Your task to perform on an android device: Clear the shopping cart on bestbuy.com. Add "apple airpods" to the cart on bestbuy.com Image 0: 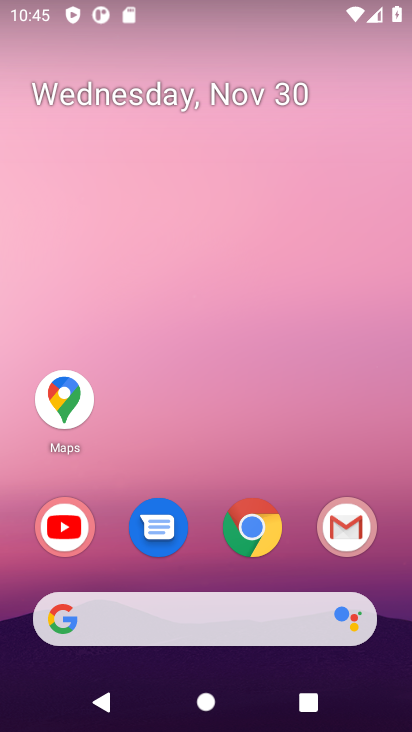
Step 0: click (249, 530)
Your task to perform on an android device: Clear the shopping cart on bestbuy.com. Add "apple airpods" to the cart on bestbuy.com Image 1: 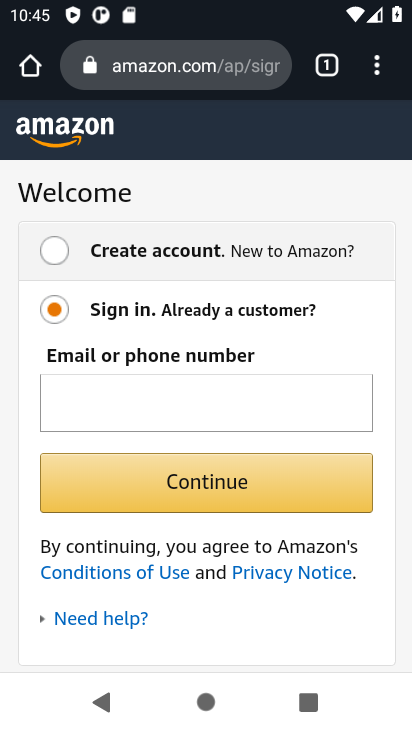
Step 1: click (161, 65)
Your task to perform on an android device: Clear the shopping cart on bestbuy.com. Add "apple airpods" to the cart on bestbuy.com Image 2: 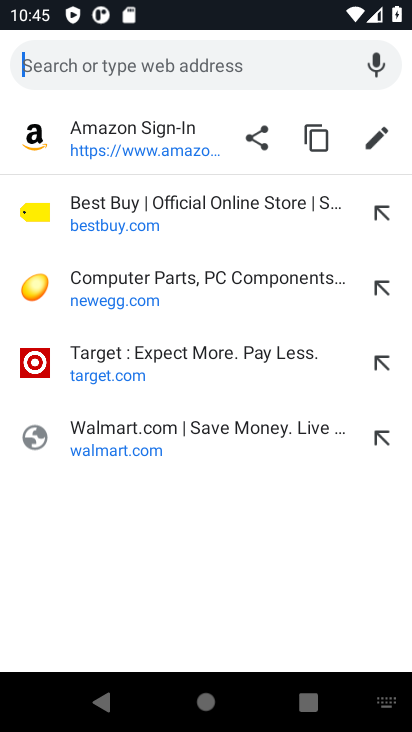
Step 2: click (103, 214)
Your task to perform on an android device: Clear the shopping cart on bestbuy.com. Add "apple airpods" to the cart on bestbuy.com Image 3: 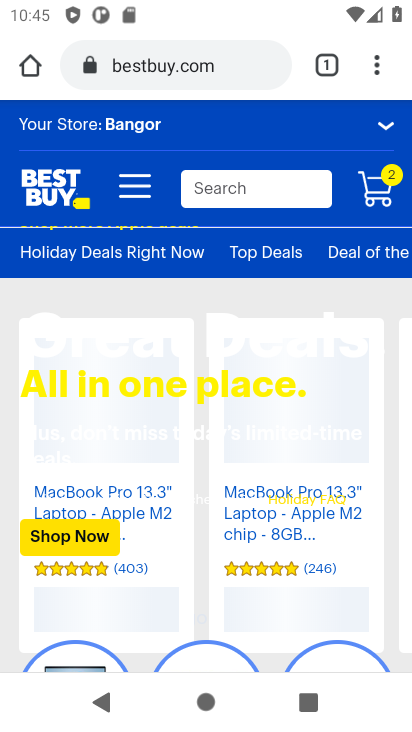
Step 3: click (371, 191)
Your task to perform on an android device: Clear the shopping cart on bestbuy.com. Add "apple airpods" to the cart on bestbuy.com Image 4: 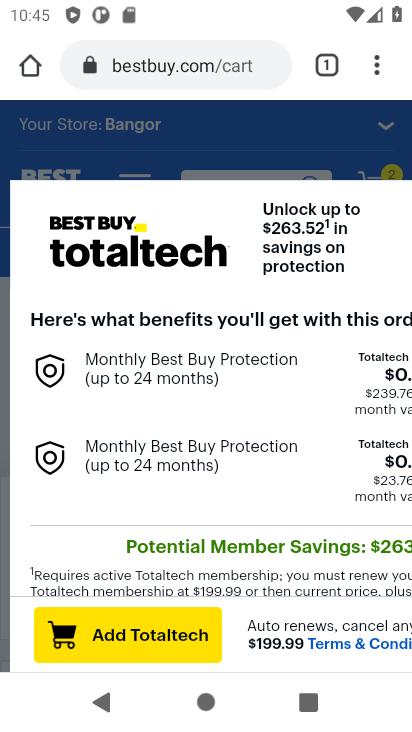
Step 4: click (347, 144)
Your task to perform on an android device: Clear the shopping cart on bestbuy.com. Add "apple airpods" to the cart on bestbuy.com Image 5: 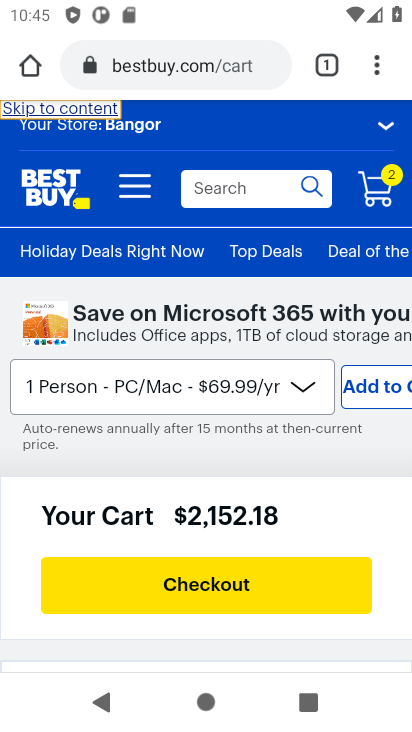
Step 5: drag from (325, 444) to (302, 185)
Your task to perform on an android device: Clear the shopping cart on bestbuy.com. Add "apple airpods" to the cart on bestbuy.com Image 6: 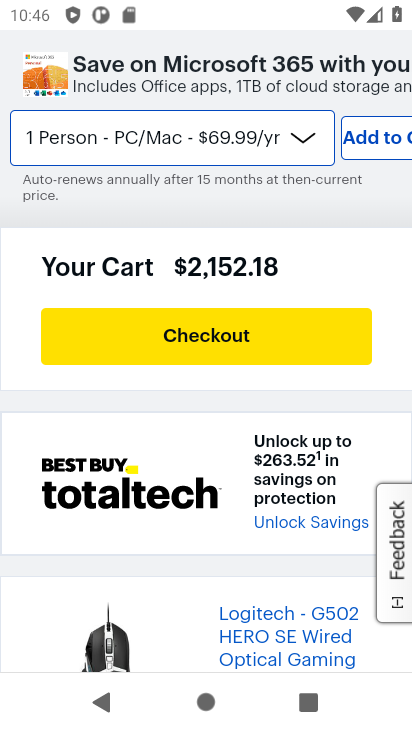
Step 6: drag from (302, 417) to (311, 269)
Your task to perform on an android device: Clear the shopping cart on bestbuy.com. Add "apple airpods" to the cart on bestbuy.com Image 7: 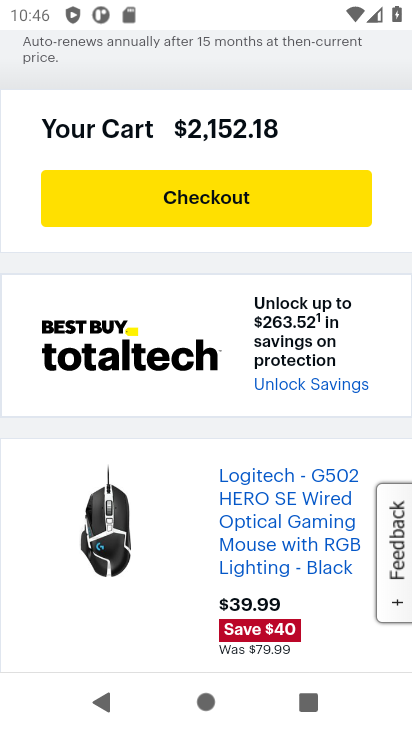
Step 7: drag from (240, 480) to (240, 256)
Your task to perform on an android device: Clear the shopping cart on bestbuy.com. Add "apple airpods" to the cart on bestbuy.com Image 8: 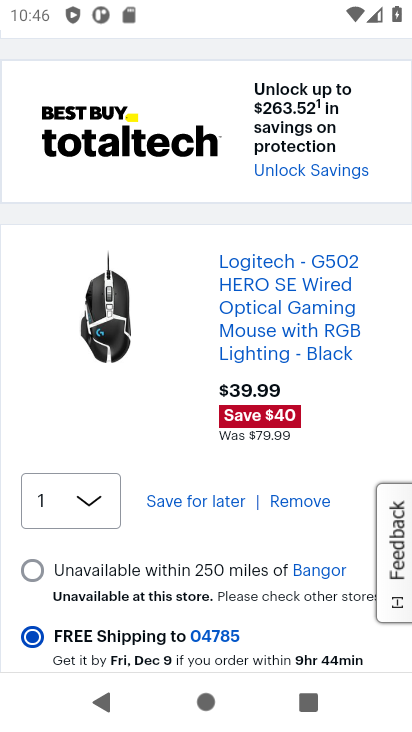
Step 8: click (305, 504)
Your task to perform on an android device: Clear the shopping cart on bestbuy.com. Add "apple airpods" to the cart on bestbuy.com Image 9: 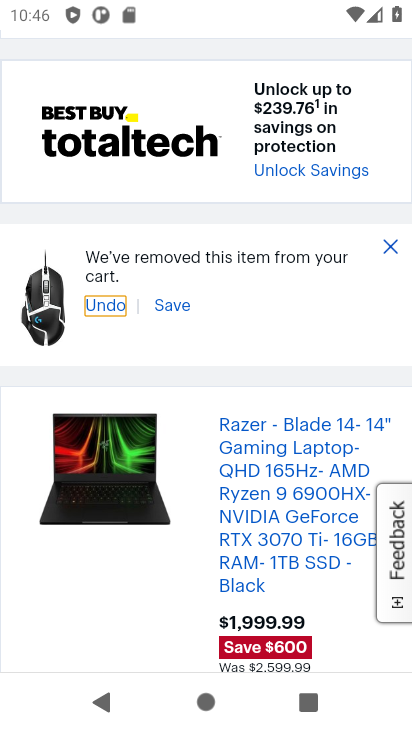
Step 9: drag from (262, 547) to (233, 353)
Your task to perform on an android device: Clear the shopping cart on bestbuy.com. Add "apple airpods" to the cart on bestbuy.com Image 10: 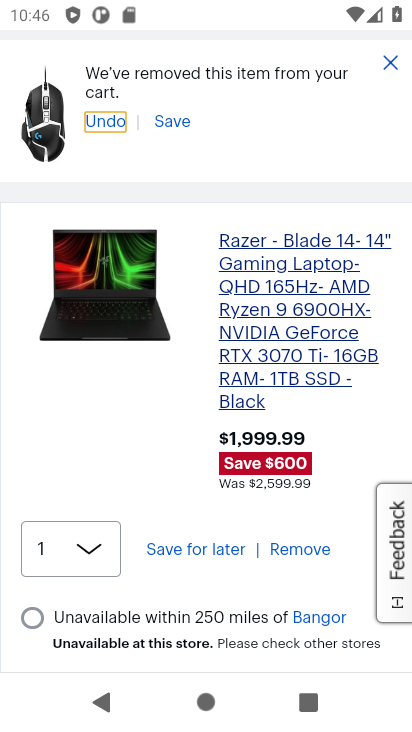
Step 10: click (279, 548)
Your task to perform on an android device: Clear the shopping cart on bestbuy.com. Add "apple airpods" to the cart on bestbuy.com Image 11: 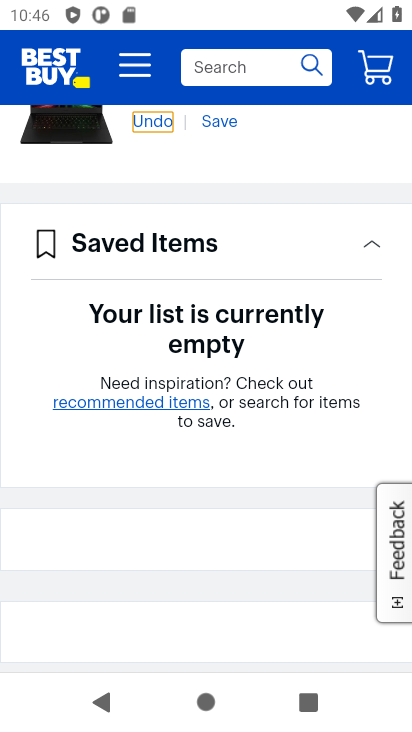
Step 11: drag from (229, 227) to (209, 532)
Your task to perform on an android device: Clear the shopping cart on bestbuy.com. Add "apple airpods" to the cart on bestbuy.com Image 12: 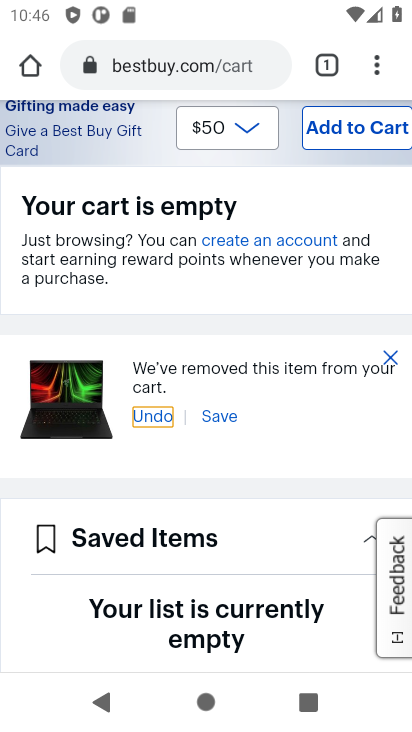
Step 12: drag from (250, 347) to (243, 591)
Your task to perform on an android device: Clear the shopping cart on bestbuy.com. Add "apple airpods" to the cart on bestbuy.com Image 13: 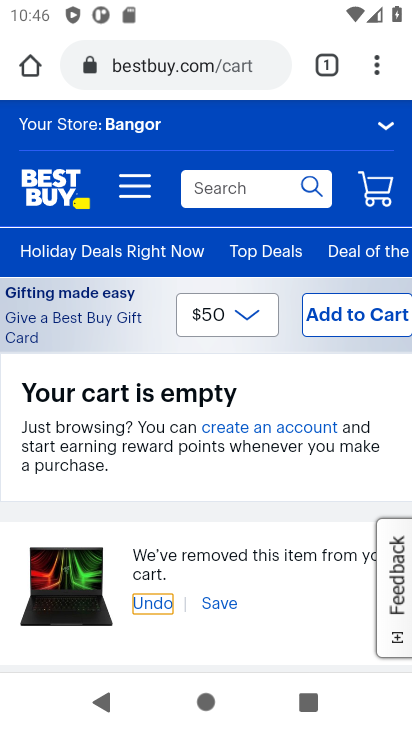
Step 13: click (198, 185)
Your task to perform on an android device: Clear the shopping cart on bestbuy.com. Add "apple airpods" to the cart on bestbuy.com Image 14: 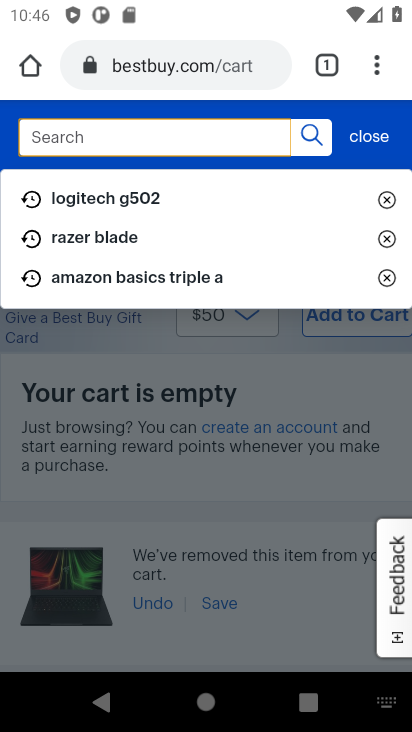
Step 14: type "apple airpods"
Your task to perform on an android device: Clear the shopping cart on bestbuy.com. Add "apple airpods" to the cart on bestbuy.com Image 15: 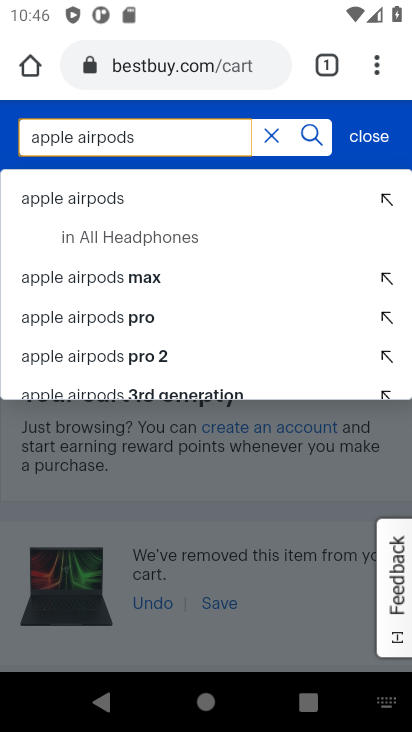
Step 15: click (58, 193)
Your task to perform on an android device: Clear the shopping cart on bestbuy.com. Add "apple airpods" to the cart on bestbuy.com Image 16: 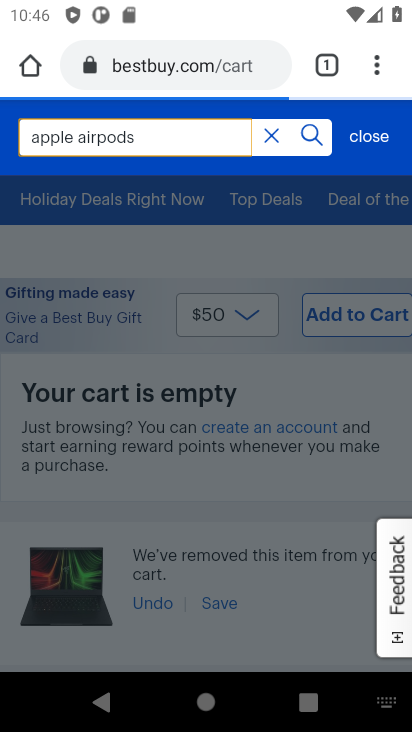
Step 16: click (304, 135)
Your task to perform on an android device: Clear the shopping cart on bestbuy.com. Add "apple airpods" to the cart on bestbuy.com Image 17: 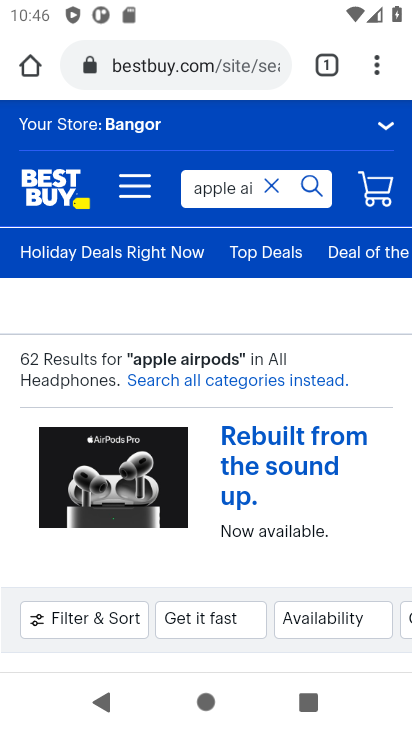
Step 17: drag from (207, 506) to (182, 273)
Your task to perform on an android device: Clear the shopping cart on bestbuy.com. Add "apple airpods" to the cart on bestbuy.com Image 18: 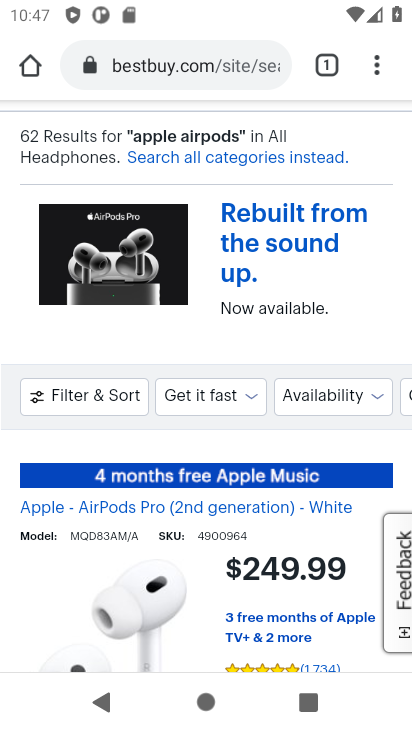
Step 18: drag from (178, 457) to (160, 239)
Your task to perform on an android device: Clear the shopping cart on bestbuy.com. Add "apple airpods" to the cart on bestbuy.com Image 19: 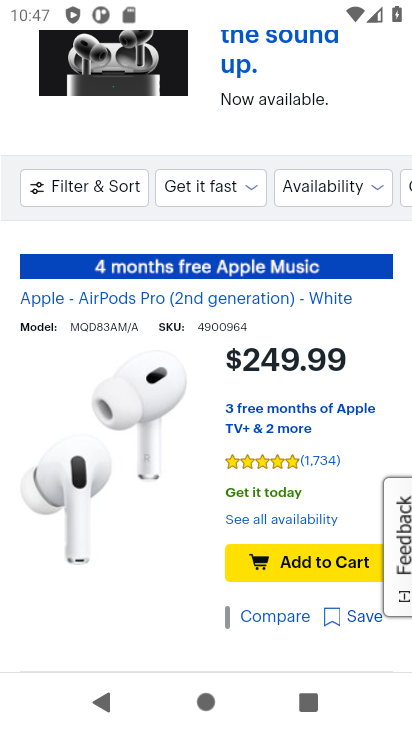
Step 19: drag from (137, 439) to (132, 279)
Your task to perform on an android device: Clear the shopping cart on bestbuy.com. Add "apple airpods" to the cart on bestbuy.com Image 20: 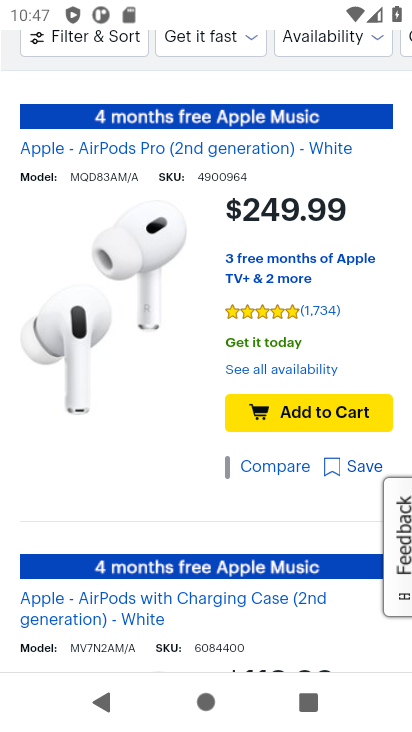
Step 20: click (293, 411)
Your task to perform on an android device: Clear the shopping cart on bestbuy.com. Add "apple airpods" to the cart on bestbuy.com Image 21: 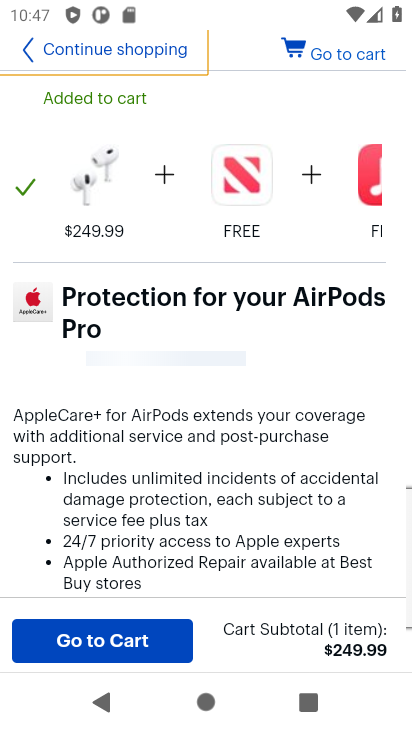
Step 21: task complete